Your task to perform on an android device: When is my next appointment? Image 0: 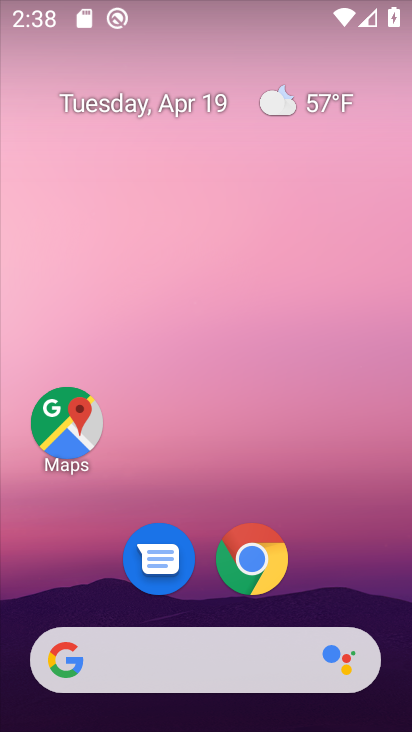
Step 0: drag from (211, 593) to (263, 197)
Your task to perform on an android device: When is my next appointment? Image 1: 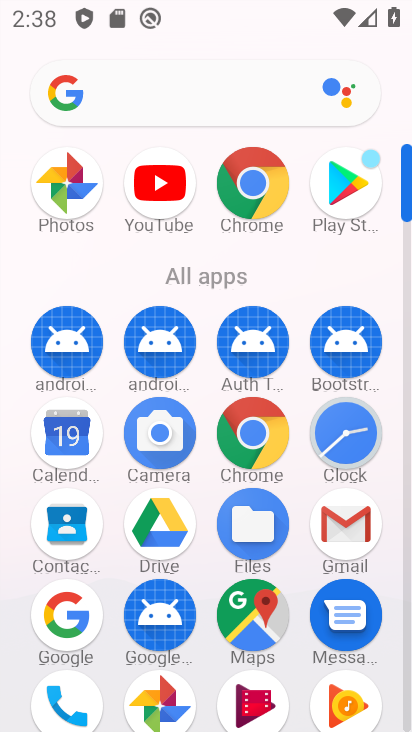
Step 1: drag from (199, 698) to (202, 327)
Your task to perform on an android device: When is my next appointment? Image 2: 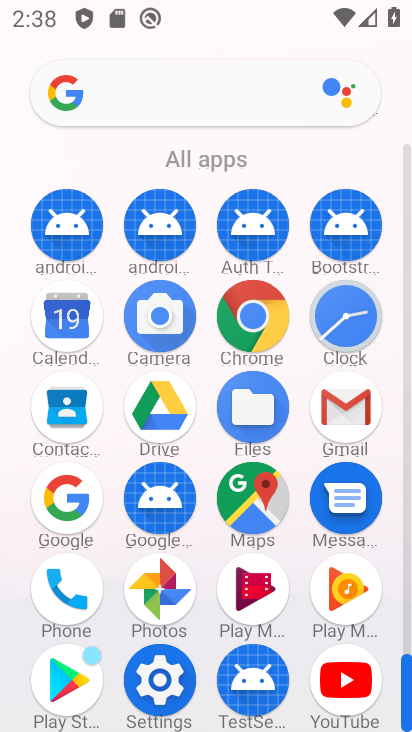
Step 2: click (70, 334)
Your task to perform on an android device: When is my next appointment? Image 3: 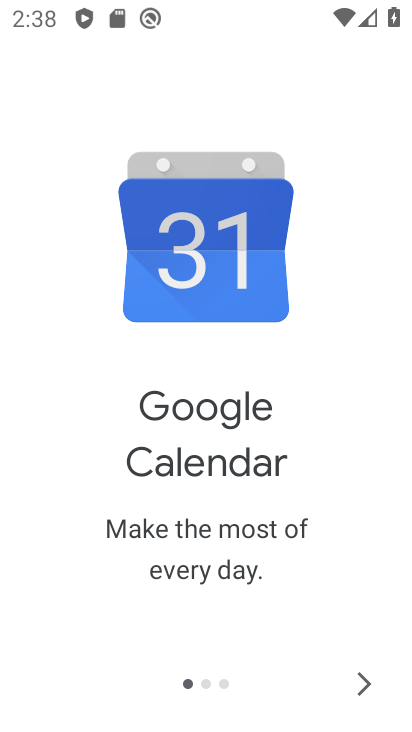
Step 3: click (368, 687)
Your task to perform on an android device: When is my next appointment? Image 4: 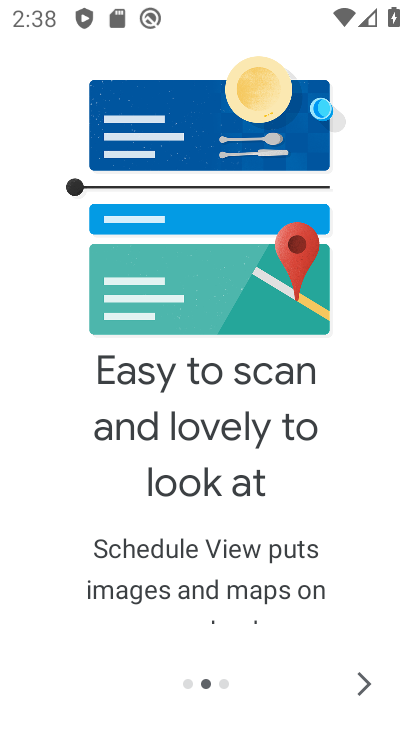
Step 4: click (368, 687)
Your task to perform on an android device: When is my next appointment? Image 5: 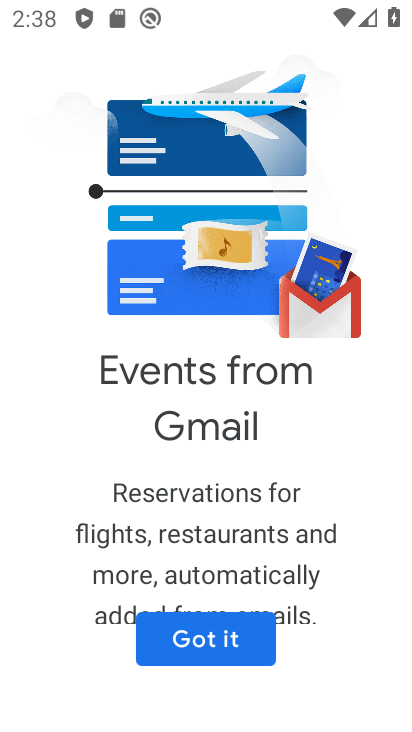
Step 5: click (368, 687)
Your task to perform on an android device: When is my next appointment? Image 6: 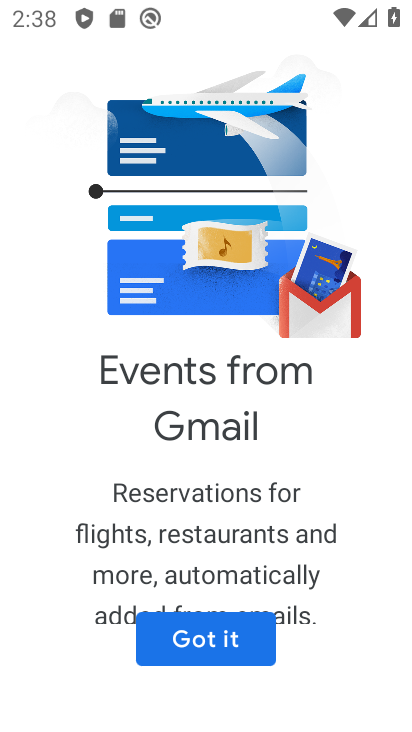
Step 6: click (233, 629)
Your task to perform on an android device: When is my next appointment? Image 7: 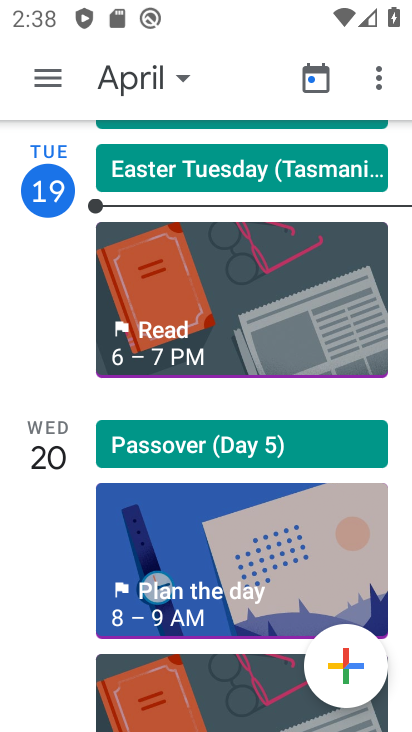
Step 7: click (144, 92)
Your task to perform on an android device: When is my next appointment? Image 8: 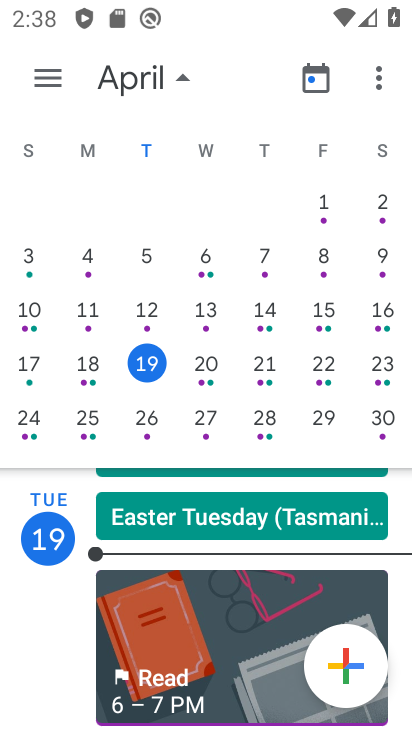
Step 8: click (196, 372)
Your task to perform on an android device: When is my next appointment? Image 9: 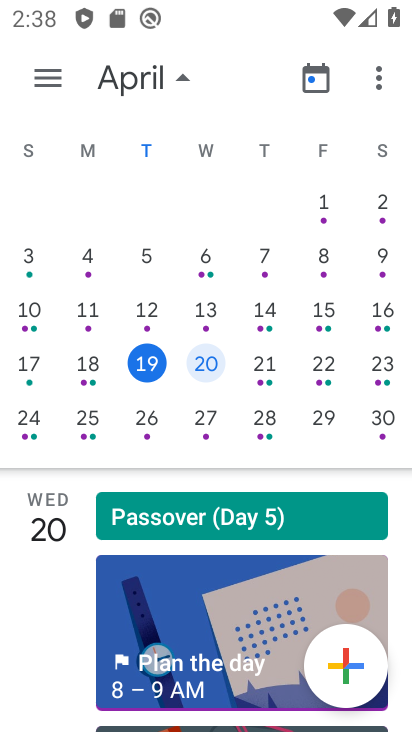
Step 9: click (257, 363)
Your task to perform on an android device: When is my next appointment? Image 10: 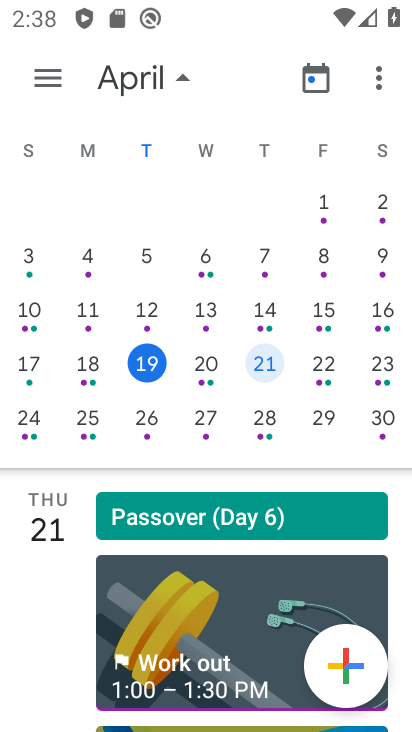
Step 10: click (306, 374)
Your task to perform on an android device: When is my next appointment? Image 11: 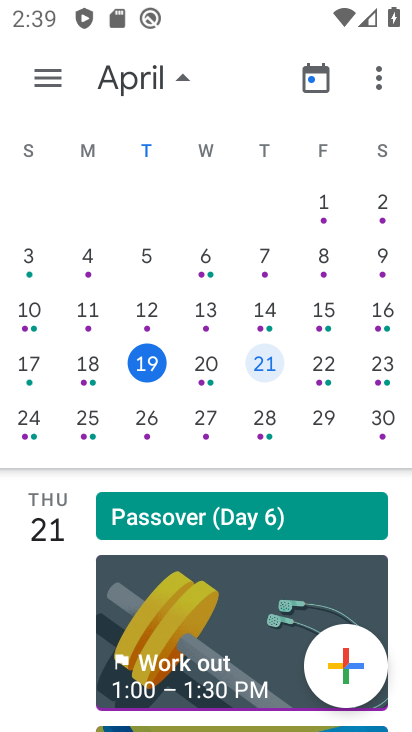
Step 11: click (309, 374)
Your task to perform on an android device: When is my next appointment? Image 12: 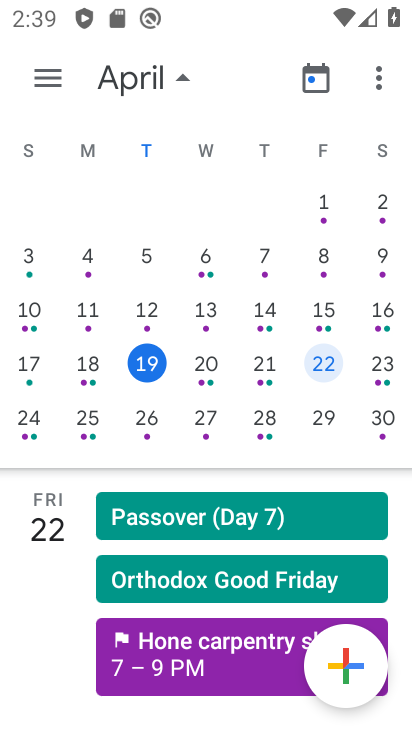
Step 12: click (380, 372)
Your task to perform on an android device: When is my next appointment? Image 13: 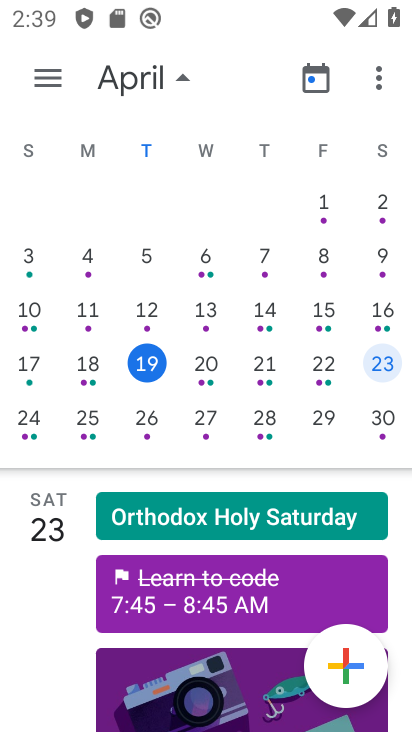
Step 13: click (32, 419)
Your task to perform on an android device: When is my next appointment? Image 14: 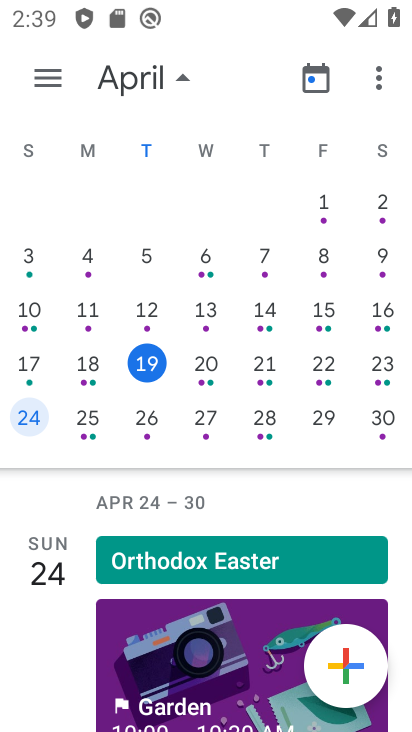
Step 14: click (89, 431)
Your task to perform on an android device: When is my next appointment? Image 15: 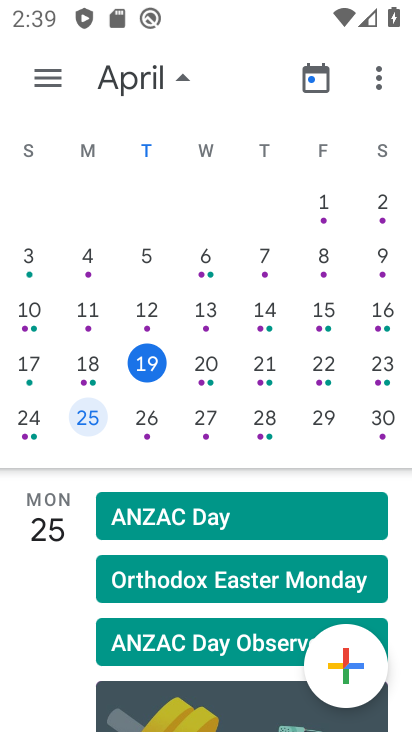
Step 15: click (138, 437)
Your task to perform on an android device: When is my next appointment? Image 16: 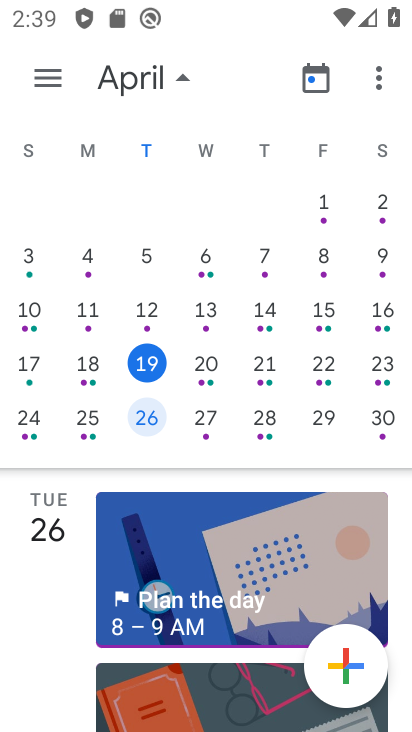
Step 16: click (217, 427)
Your task to perform on an android device: When is my next appointment? Image 17: 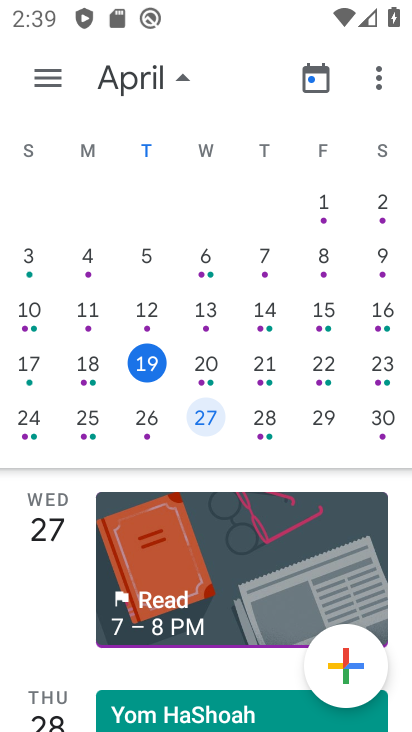
Step 17: click (274, 427)
Your task to perform on an android device: When is my next appointment? Image 18: 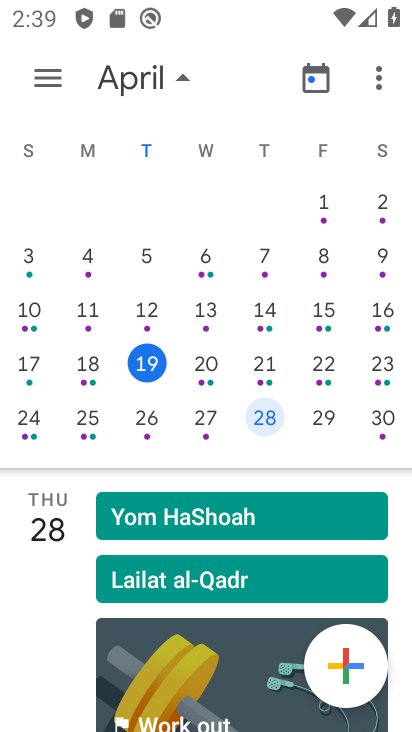
Step 18: click (319, 421)
Your task to perform on an android device: When is my next appointment? Image 19: 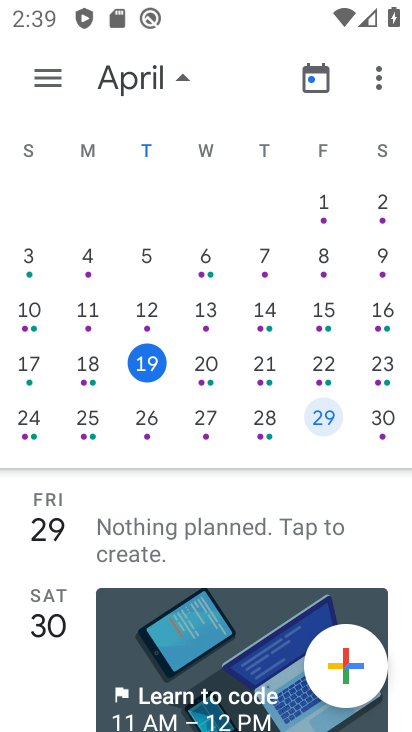
Step 19: click (379, 420)
Your task to perform on an android device: When is my next appointment? Image 20: 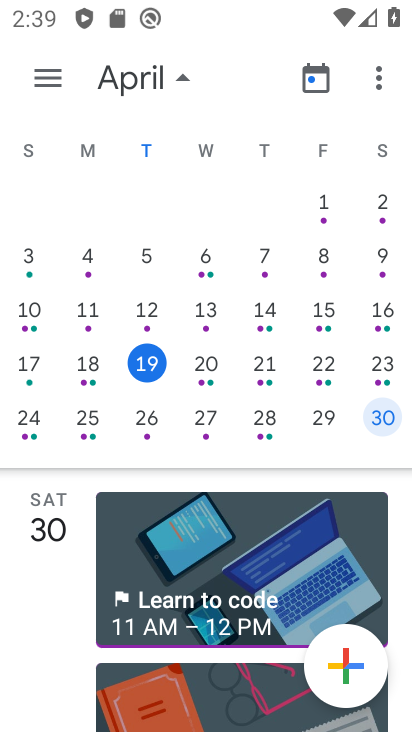
Step 20: drag from (384, 288) to (4, 234)
Your task to perform on an android device: When is my next appointment? Image 21: 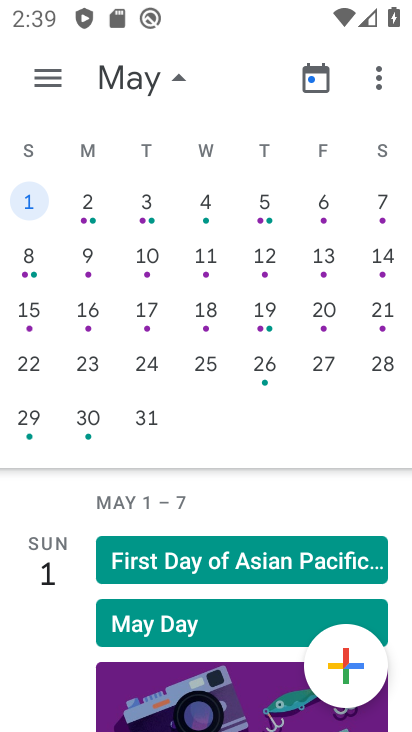
Step 21: click (30, 202)
Your task to perform on an android device: When is my next appointment? Image 22: 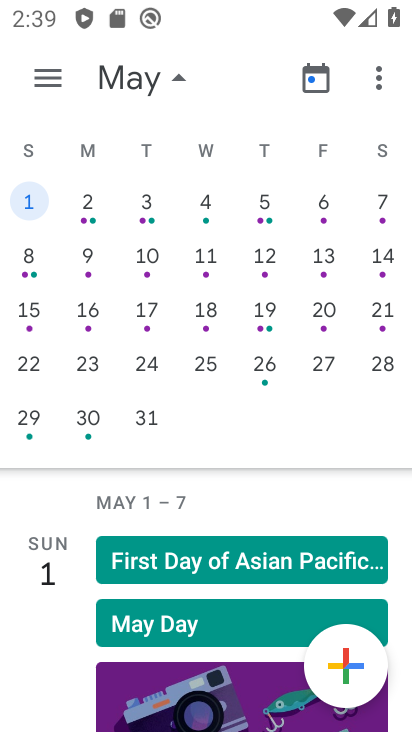
Step 22: click (94, 212)
Your task to perform on an android device: When is my next appointment? Image 23: 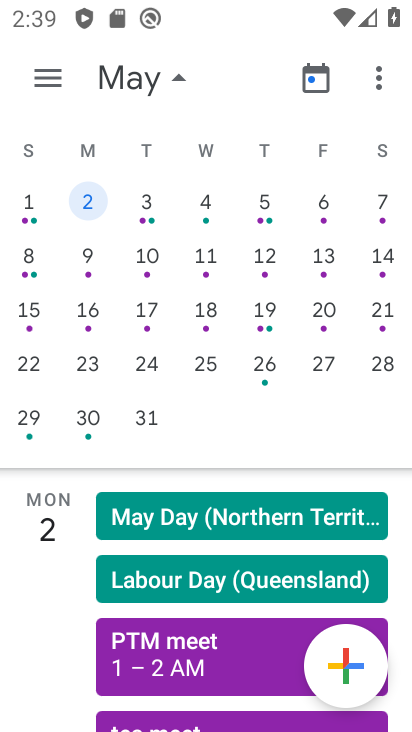
Step 23: click (142, 217)
Your task to perform on an android device: When is my next appointment? Image 24: 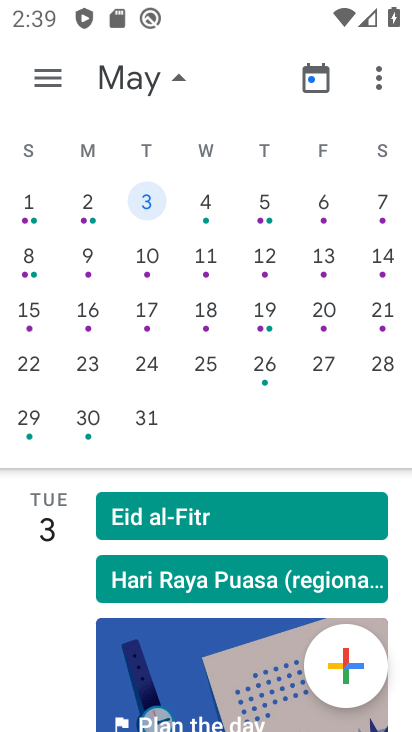
Step 24: click (199, 210)
Your task to perform on an android device: When is my next appointment? Image 25: 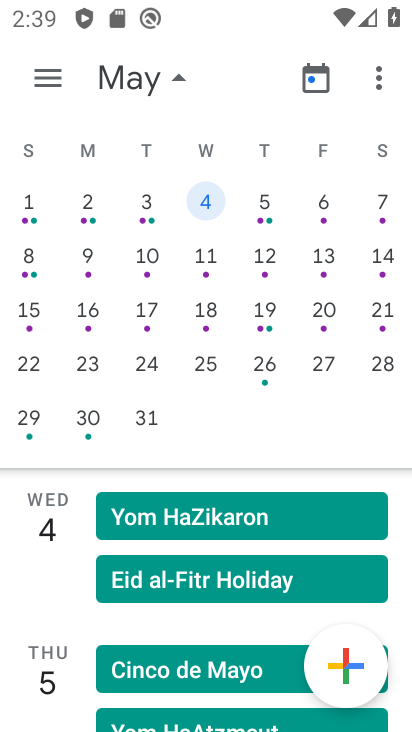
Step 25: click (255, 210)
Your task to perform on an android device: When is my next appointment? Image 26: 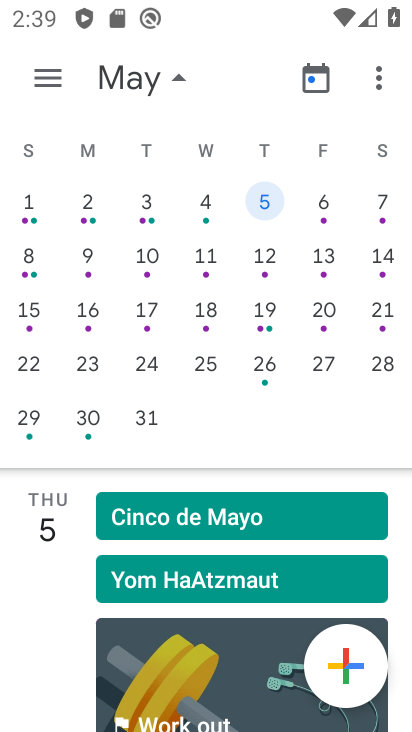
Step 26: task complete